Your task to perform on an android device: Search for razer thresher on walmart.com, select the first entry, and add it to the cart. Image 0: 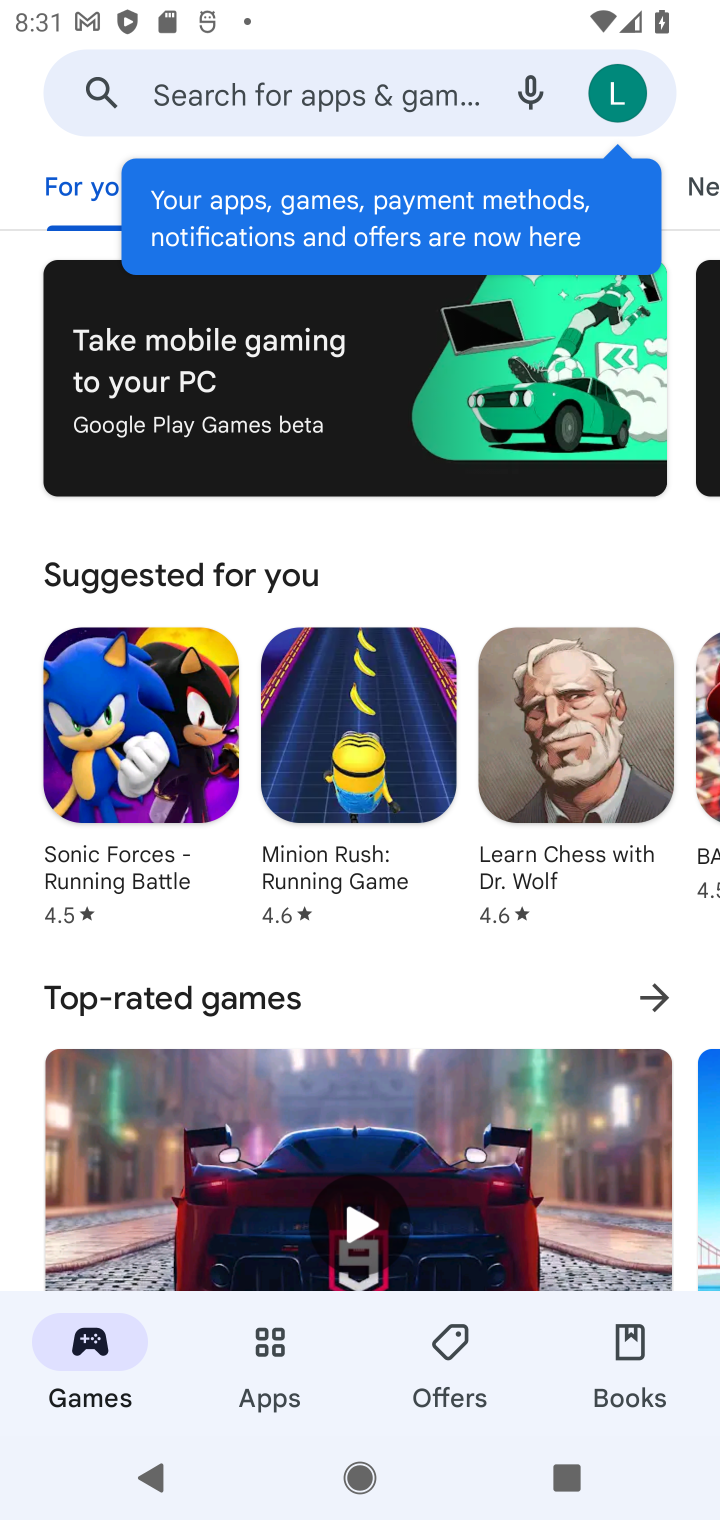
Step 0: press home button
Your task to perform on an android device: Search for razer thresher on walmart.com, select the first entry, and add it to the cart. Image 1: 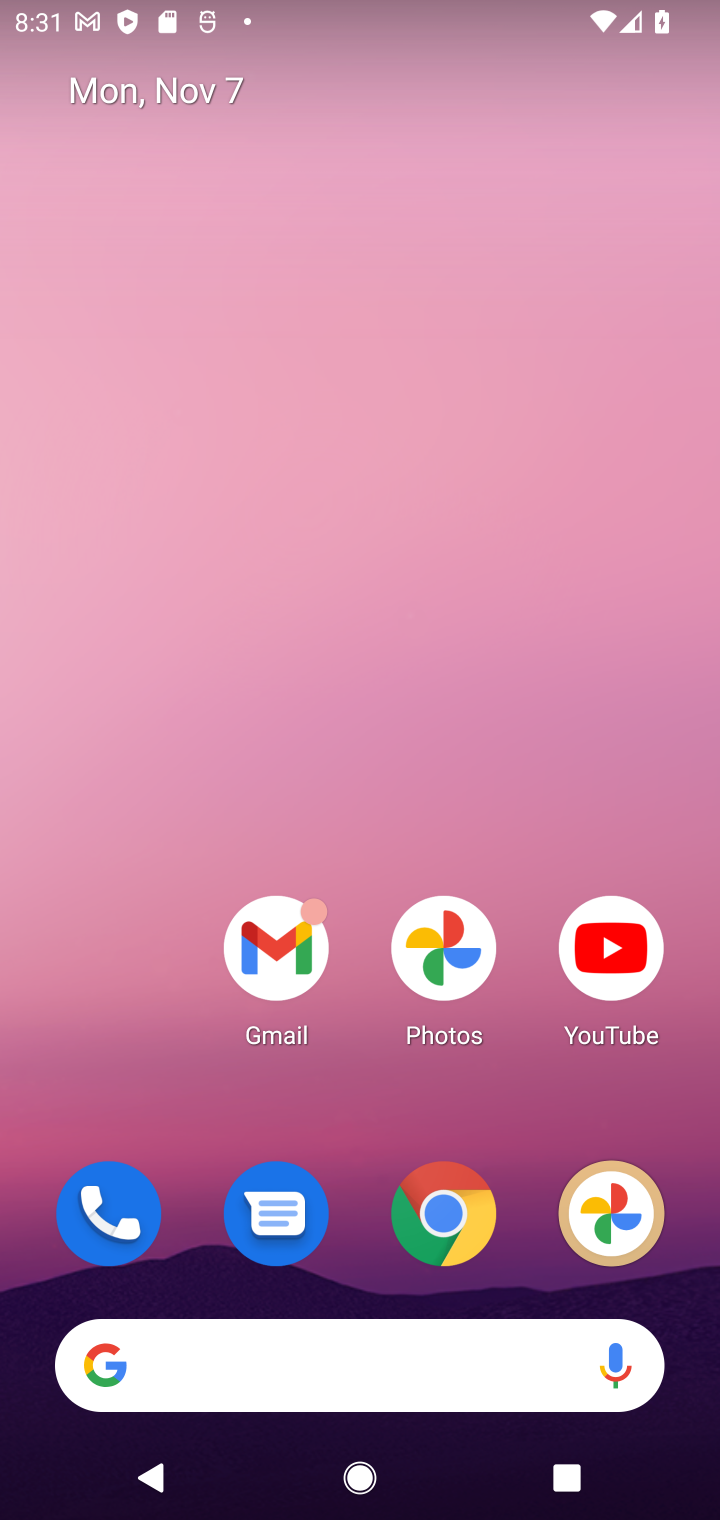
Step 1: click (459, 1222)
Your task to perform on an android device: Search for razer thresher on walmart.com, select the first entry, and add it to the cart. Image 2: 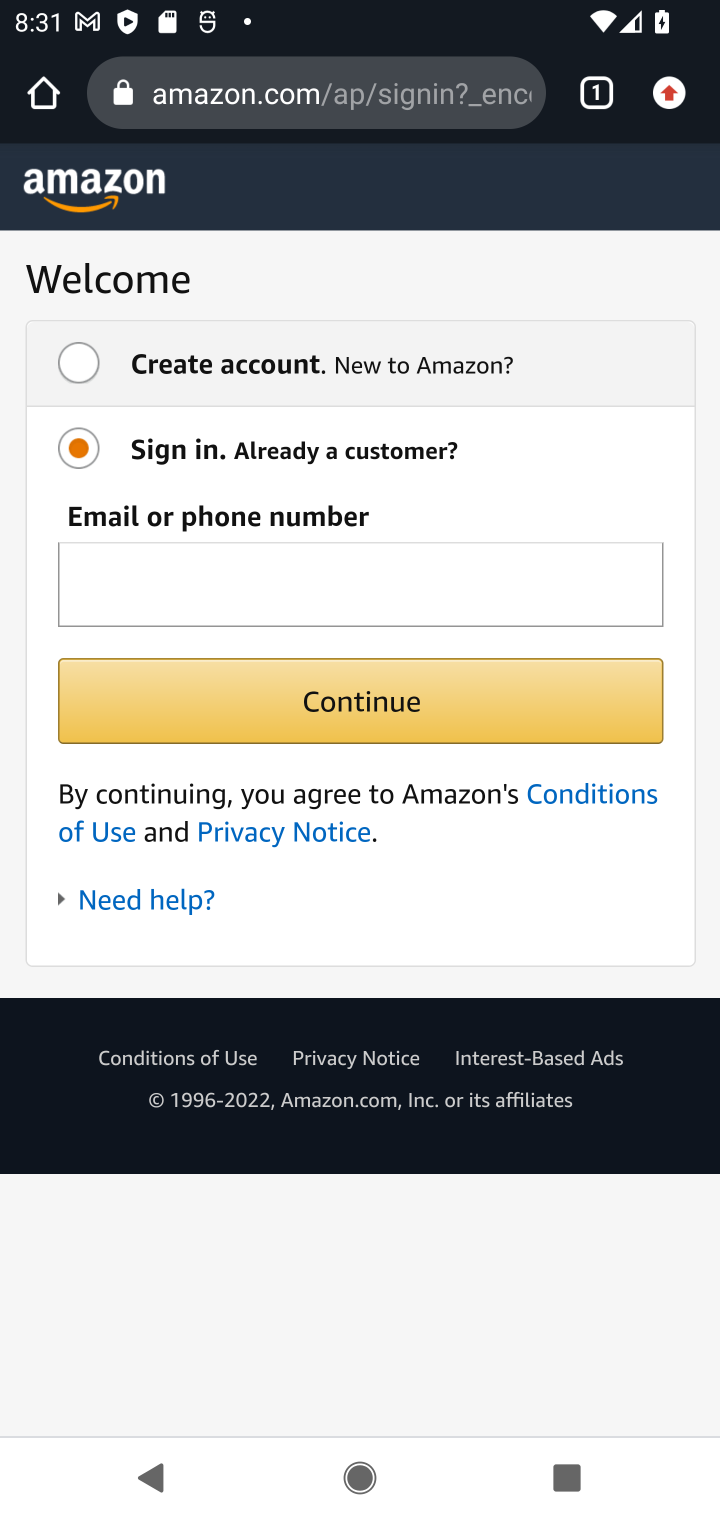
Step 2: click (345, 108)
Your task to perform on an android device: Search for razer thresher on walmart.com, select the first entry, and add it to the cart. Image 3: 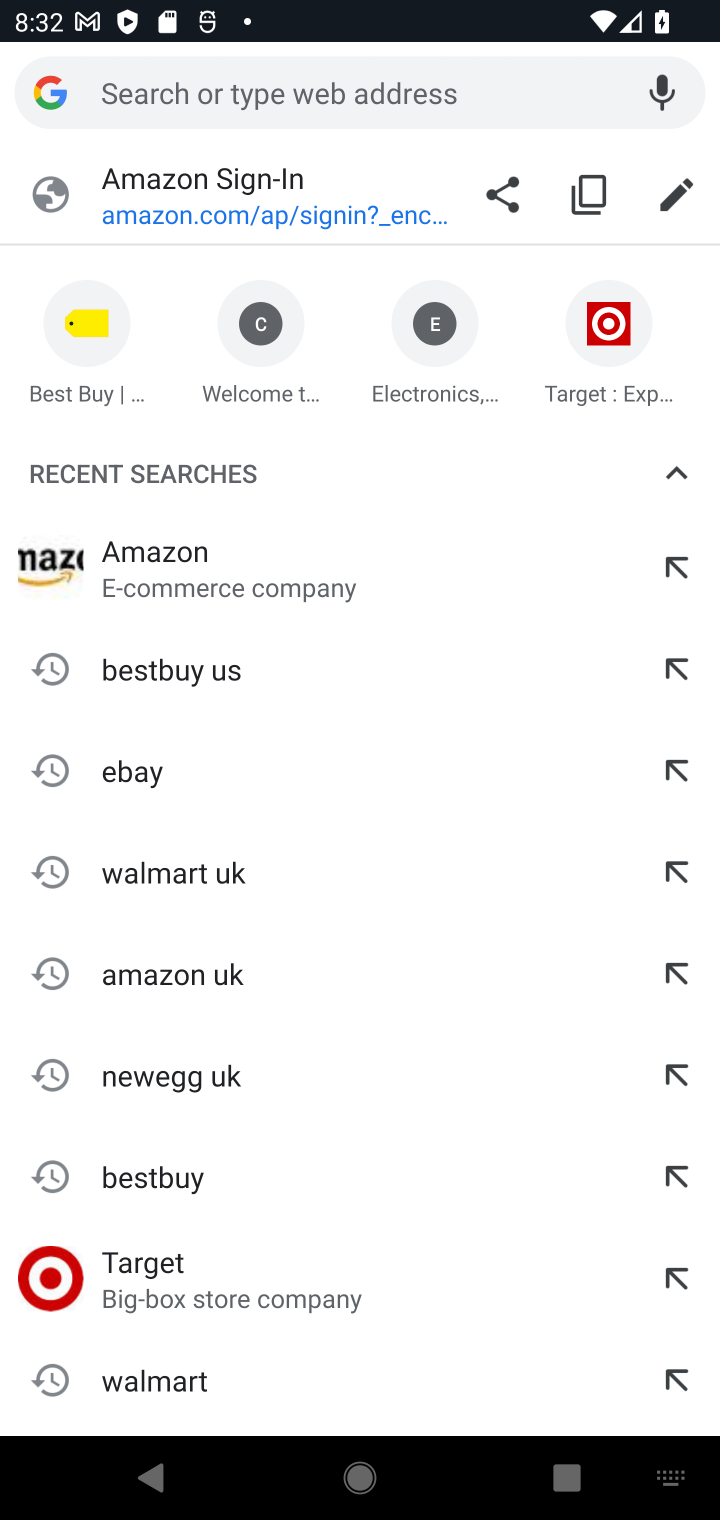
Step 3: type "walmart.com"
Your task to perform on an android device: Search for razer thresher on walmart.com, select the first entry, and add it to the cart. Image 4: 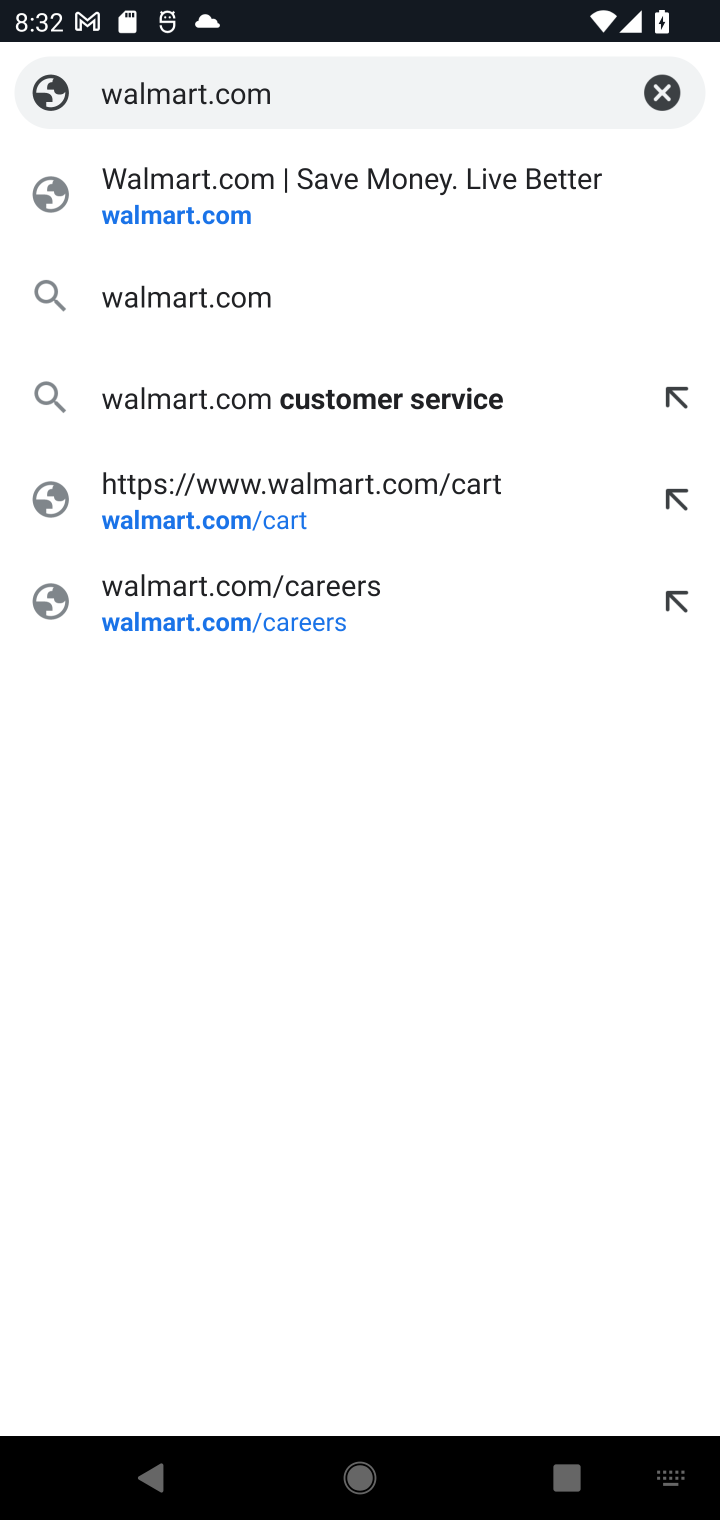
Step 4: click (179, 218)
Your task to perform on an android device: Search for razer thresher on walmart.com, select the first entry, and add it to the cart. Image 5: 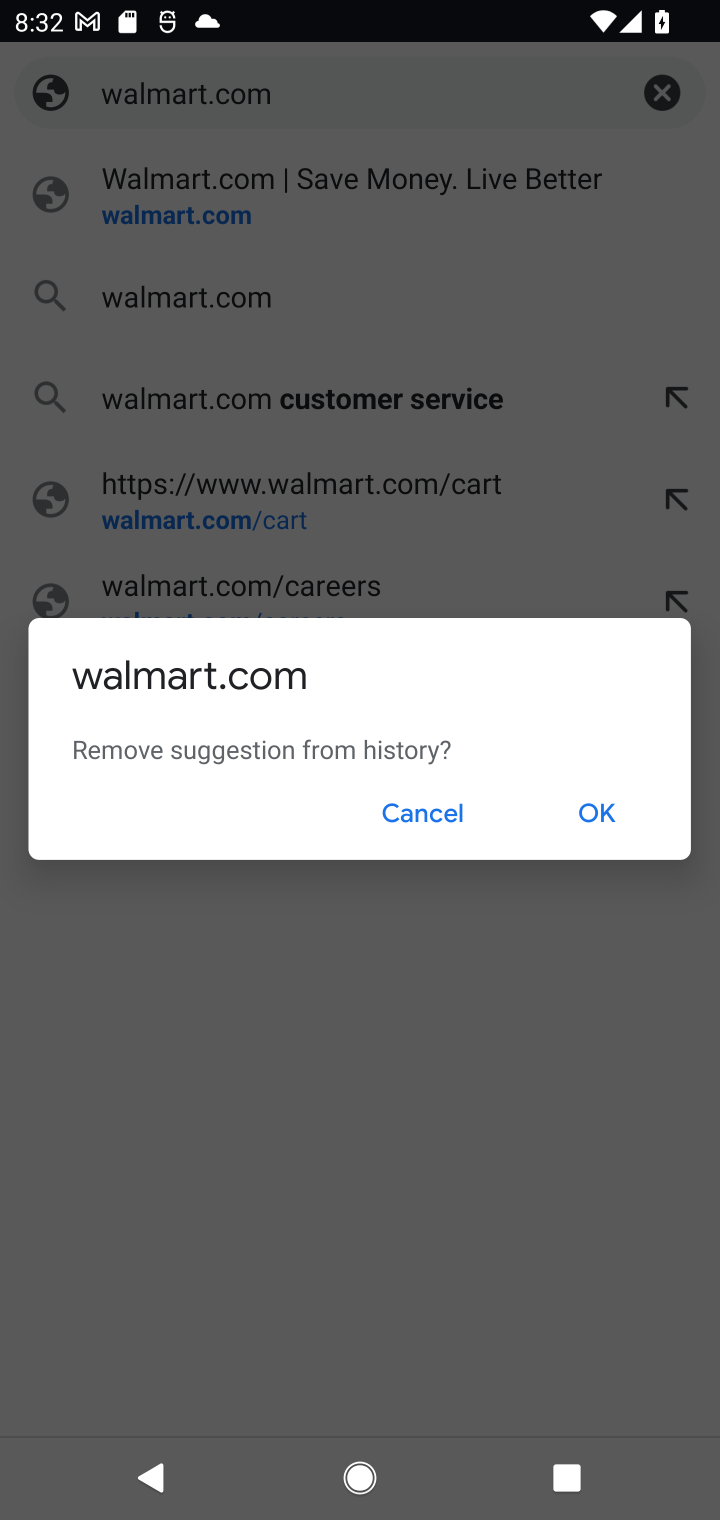
Step 5: click (425, 814)
Your task to perform on an android device: Search for razer thresher on walmart.com, select the first entry, and add it to the cart. Image 6: 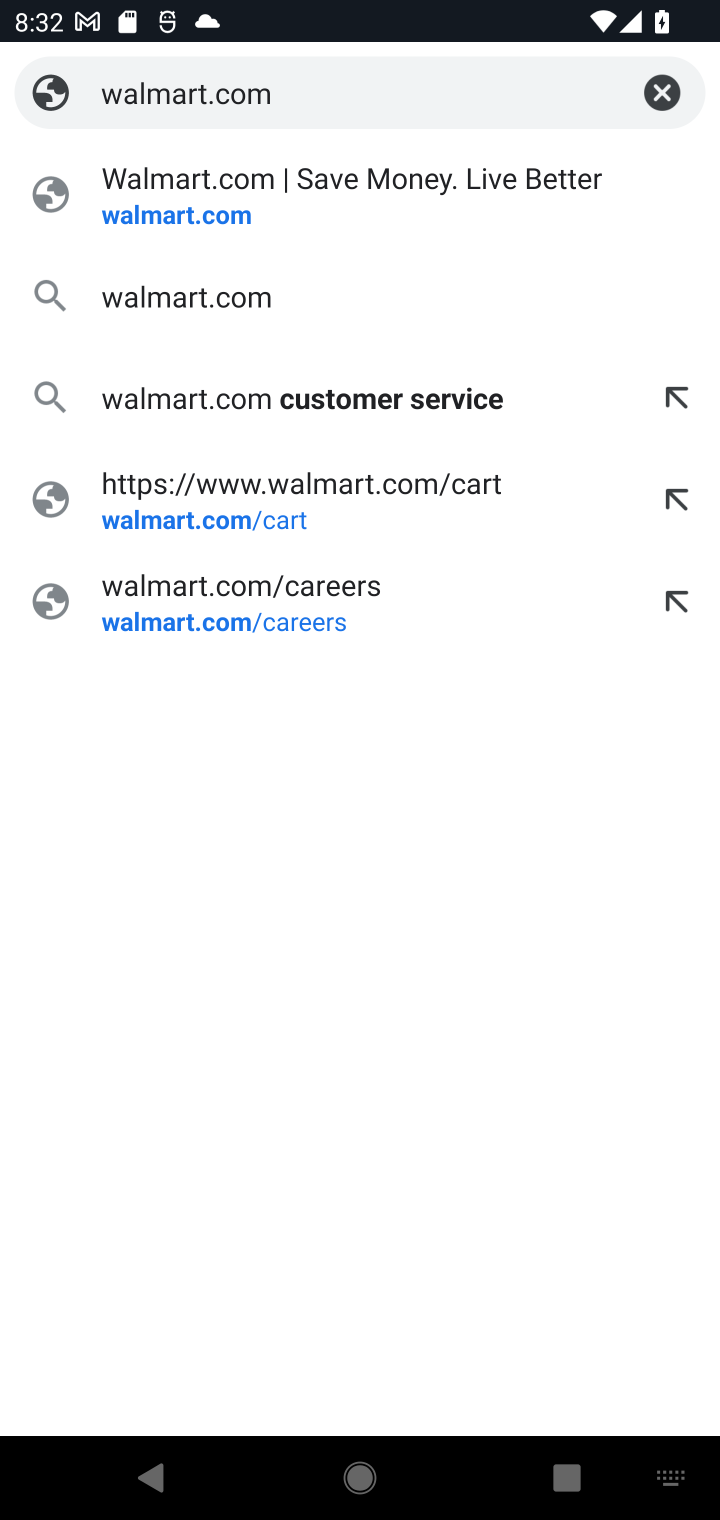
Step 6: click (136, 253)
Your task to perform on an android device: Search for razer thresher on walmart.com, select the first entry, and add it to the cart. Image 7: 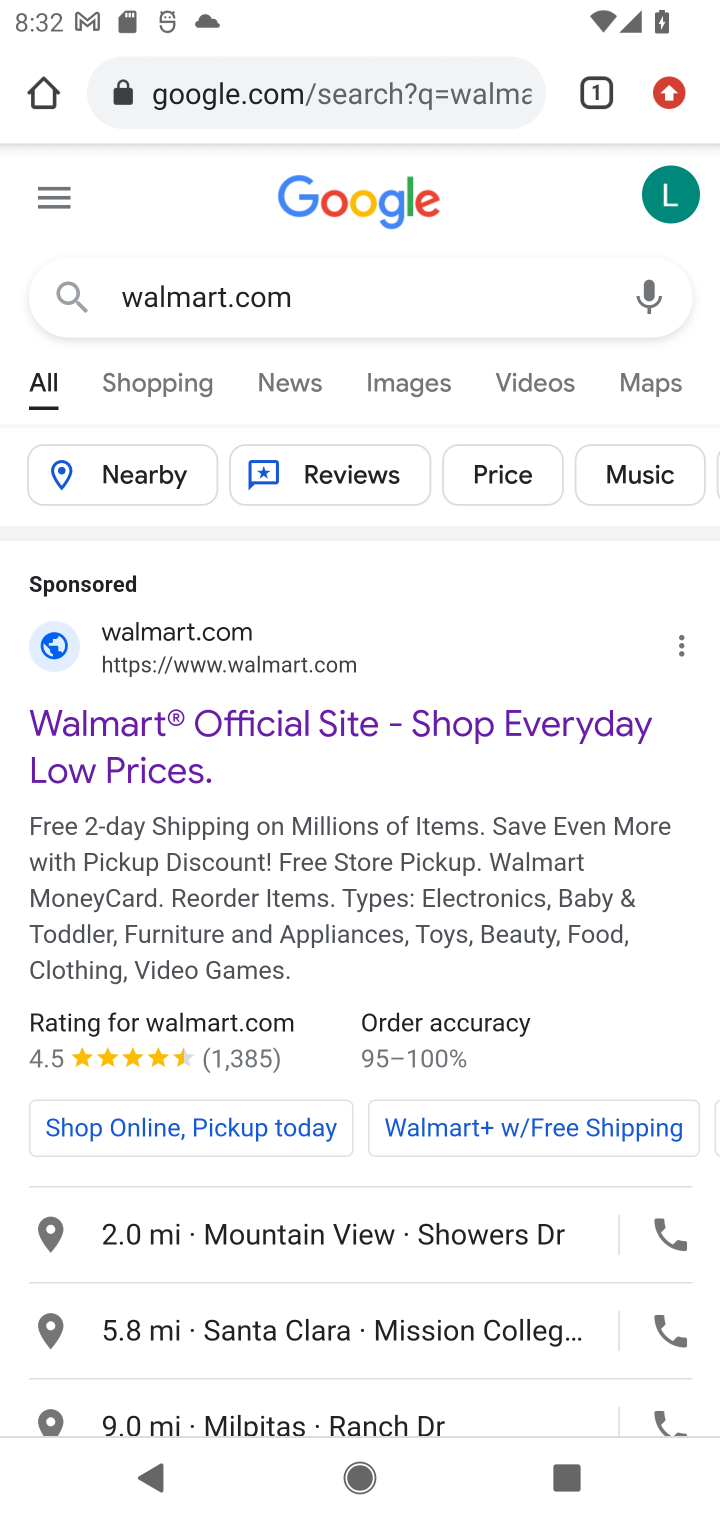
Step 7: drag from (176, 898) to (174, 277)
Your task to perform on an android device: Search for razer thresher on walmart.com, select the first entry, and add it to the cart. Image 8: 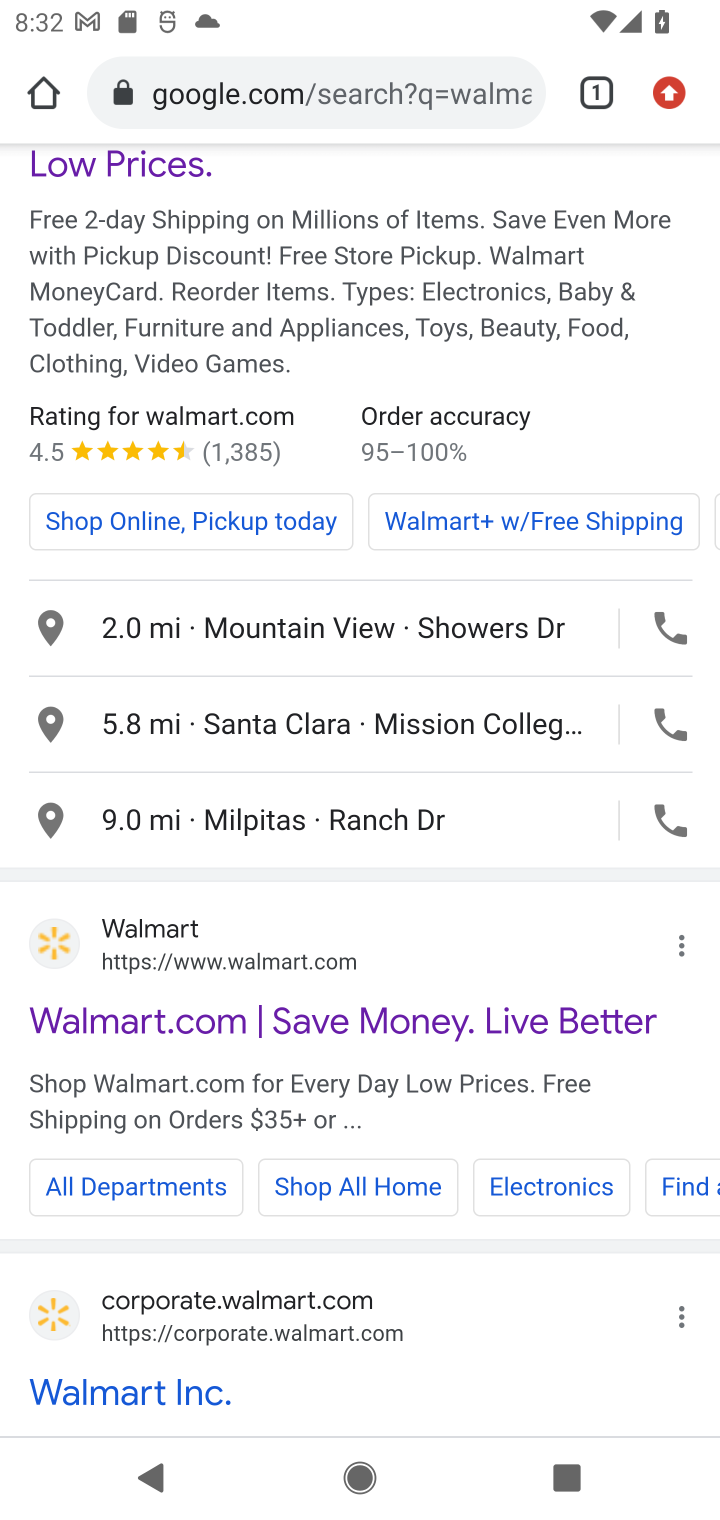
Step 8: click (165, 959)
Your task to perform on an android device: Search for razer thresher on walmart.com, select the first entry, and add it to the cart. Image 9: 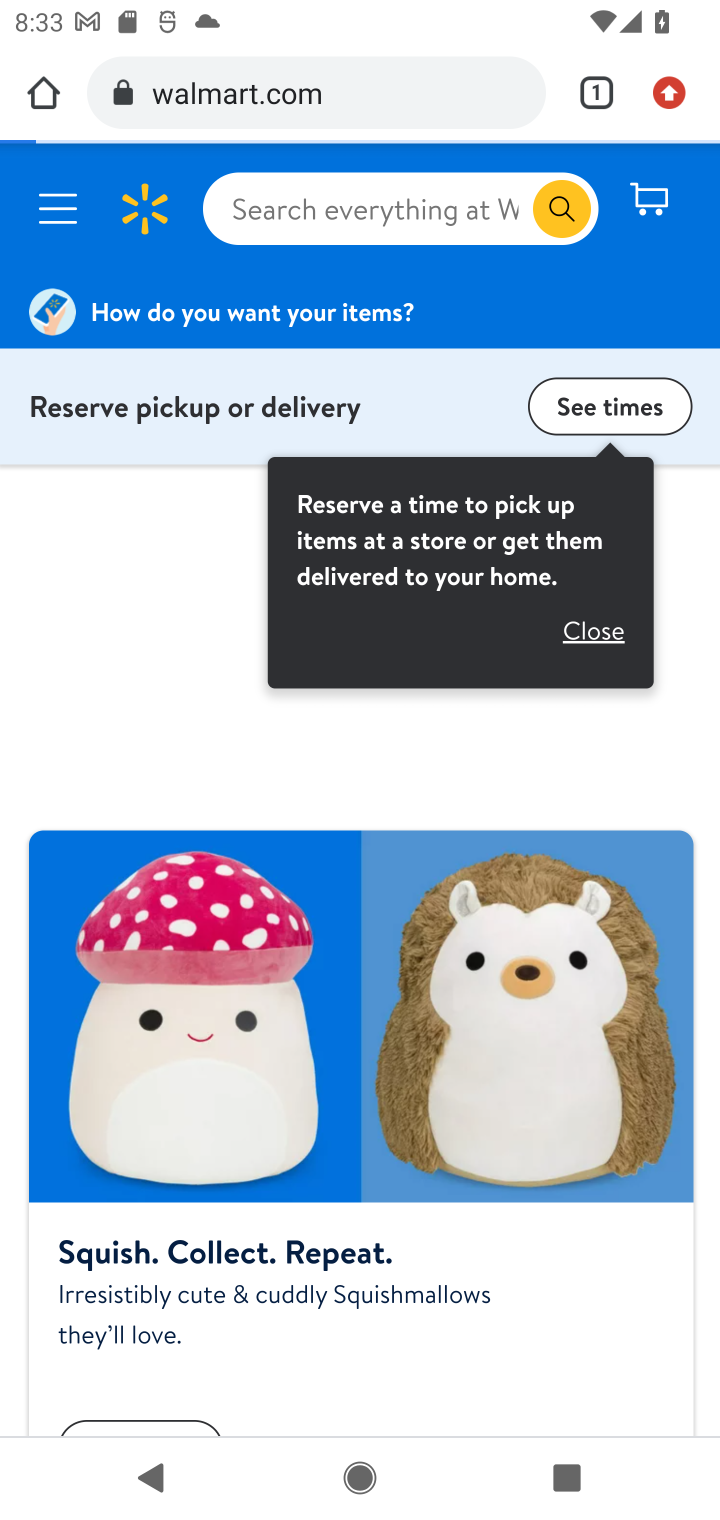
Step 9: click (353, 220)
Your task to perform on an android device: Search for razer thresher on walmart.com, select the first entry, and add it to the cart. Image 10: 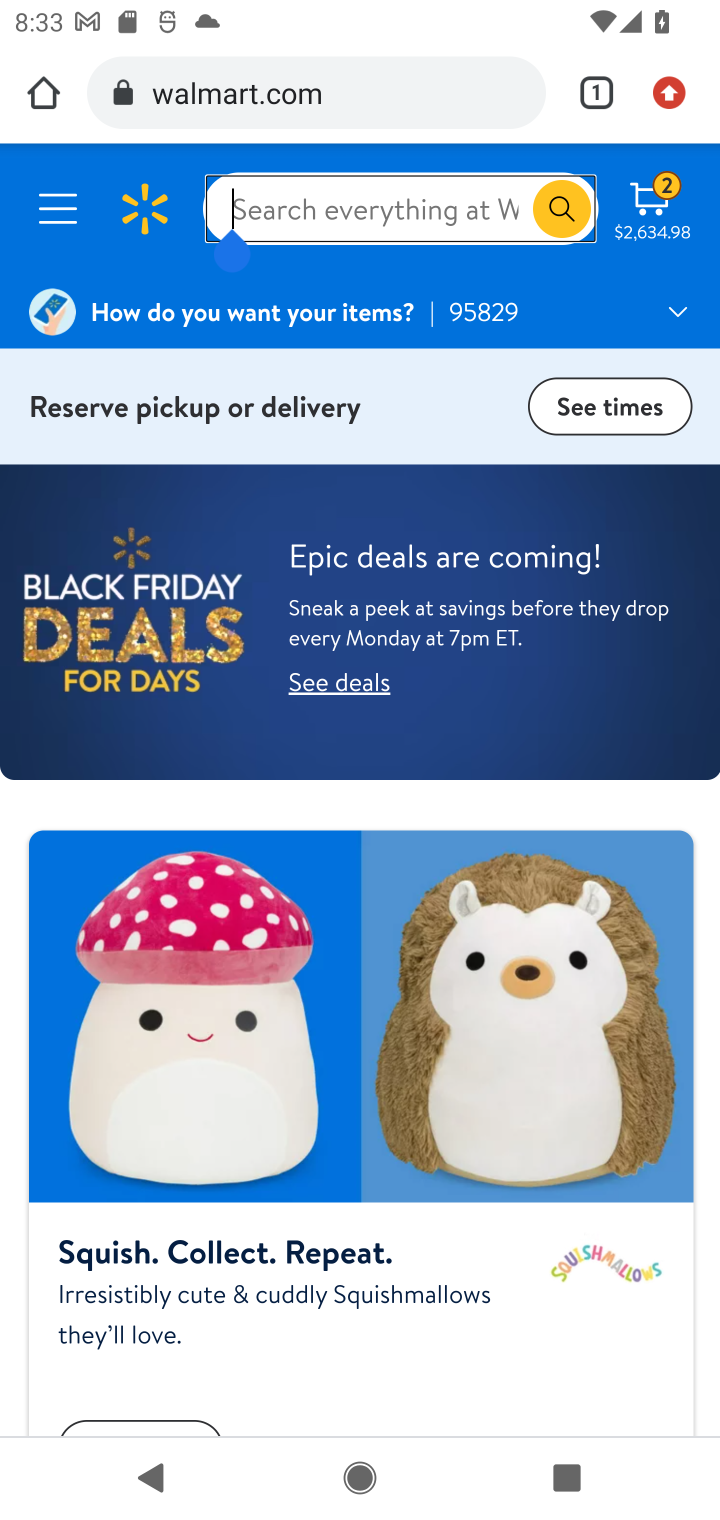
Step 10: type "razer thresher"
Your task to perform on an android device: Search for razer thresher on walmart.com, select the first entry, and add it to the cart. Image 11: 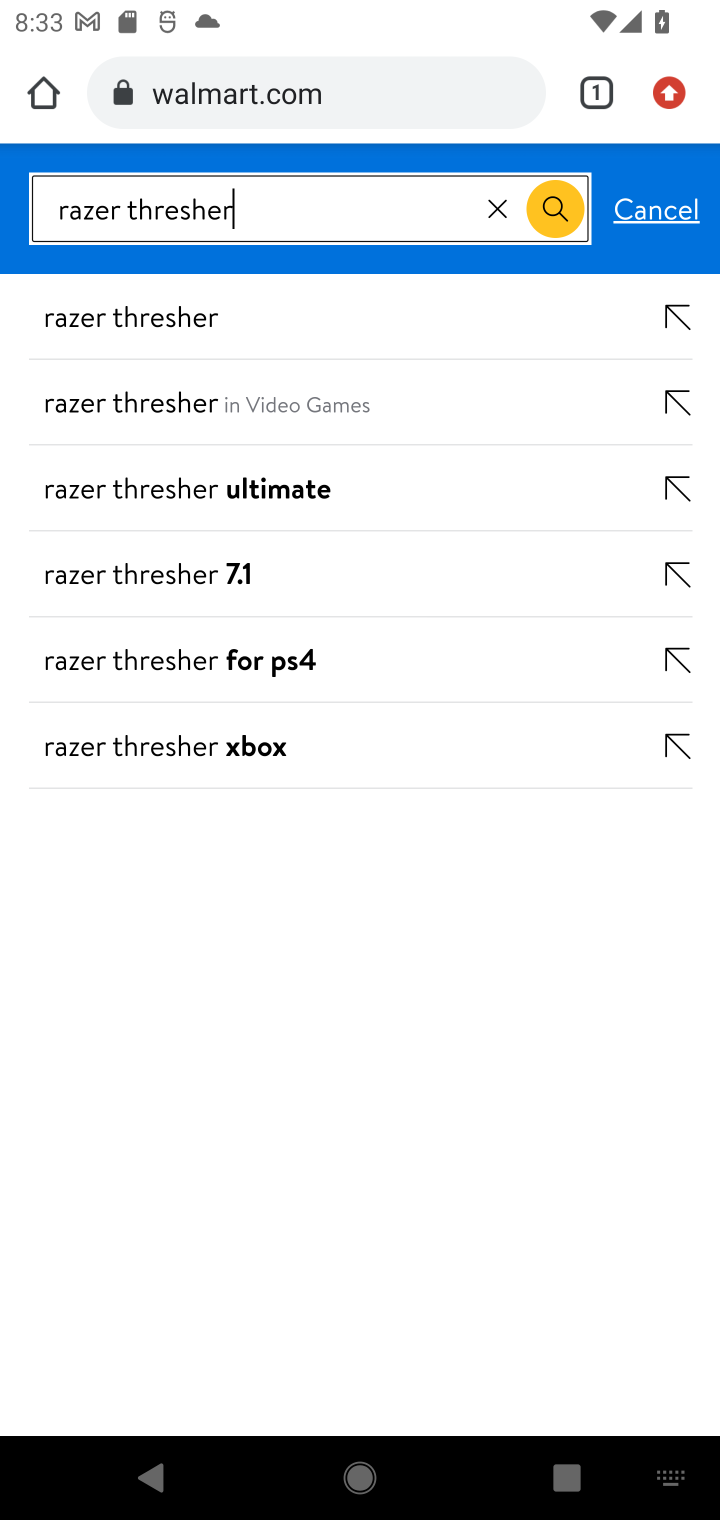
Step 11: click (114, 322)
Your task to perform on an android device: Search for razer thresher on walmart.com, select the first entry, and add it to the cart. Image 12: 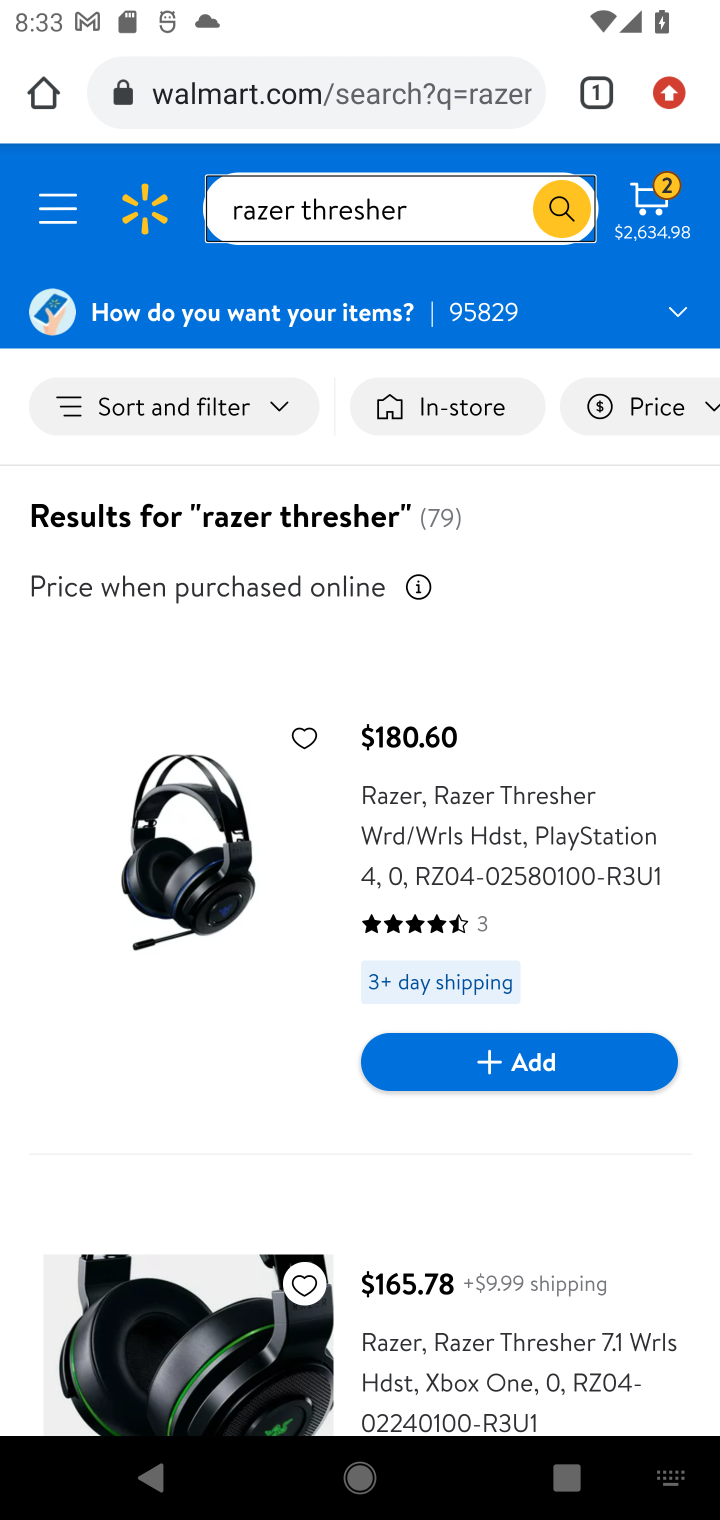
Step 12: click (539, 1068)
Your task to perform on an android device: Search for razer thresher on walmart.com, select the first entry, and add it to the cart. Image 13: 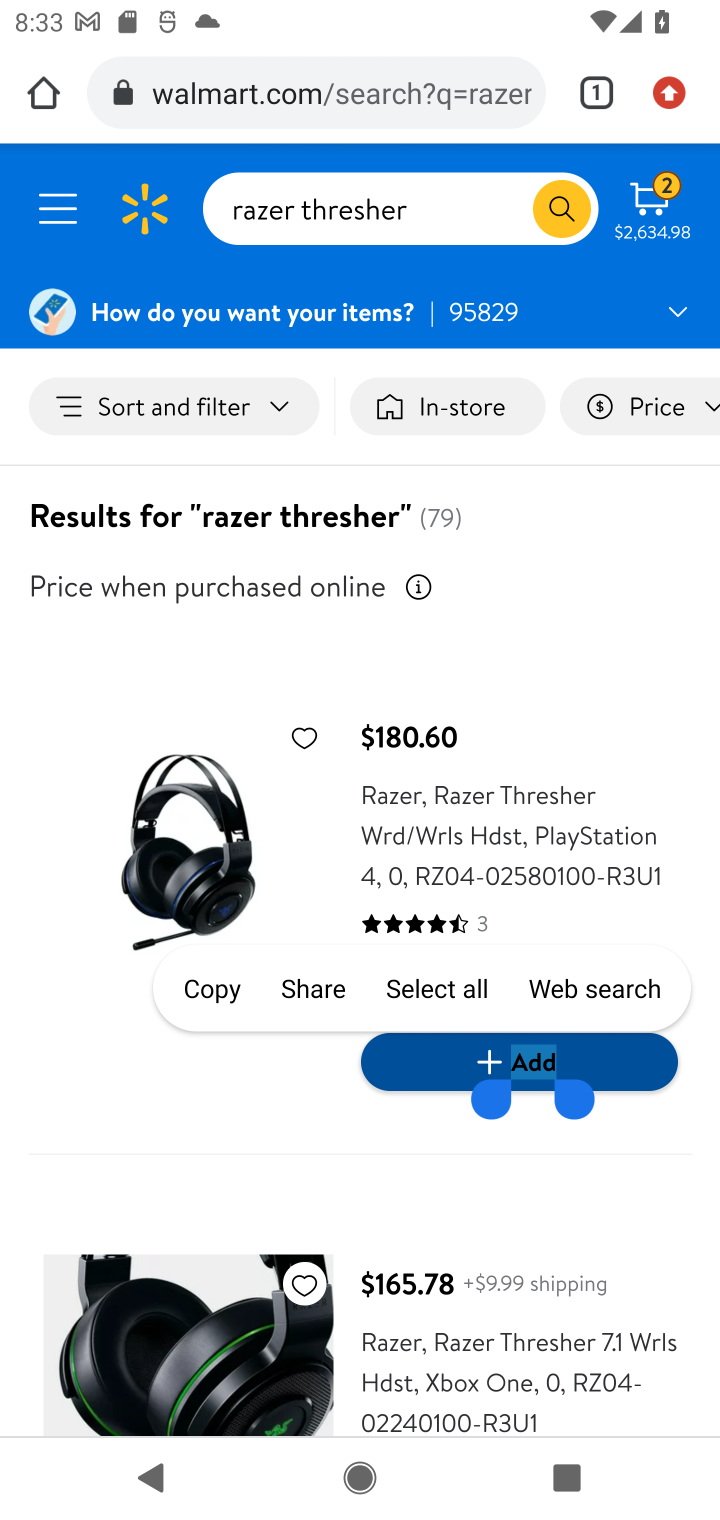
Step 13: click (498, 1070)
Your task to perform on an android device: Search for razer thresher on walmart.com, select the first entry, and add it to the cart. Image 14: 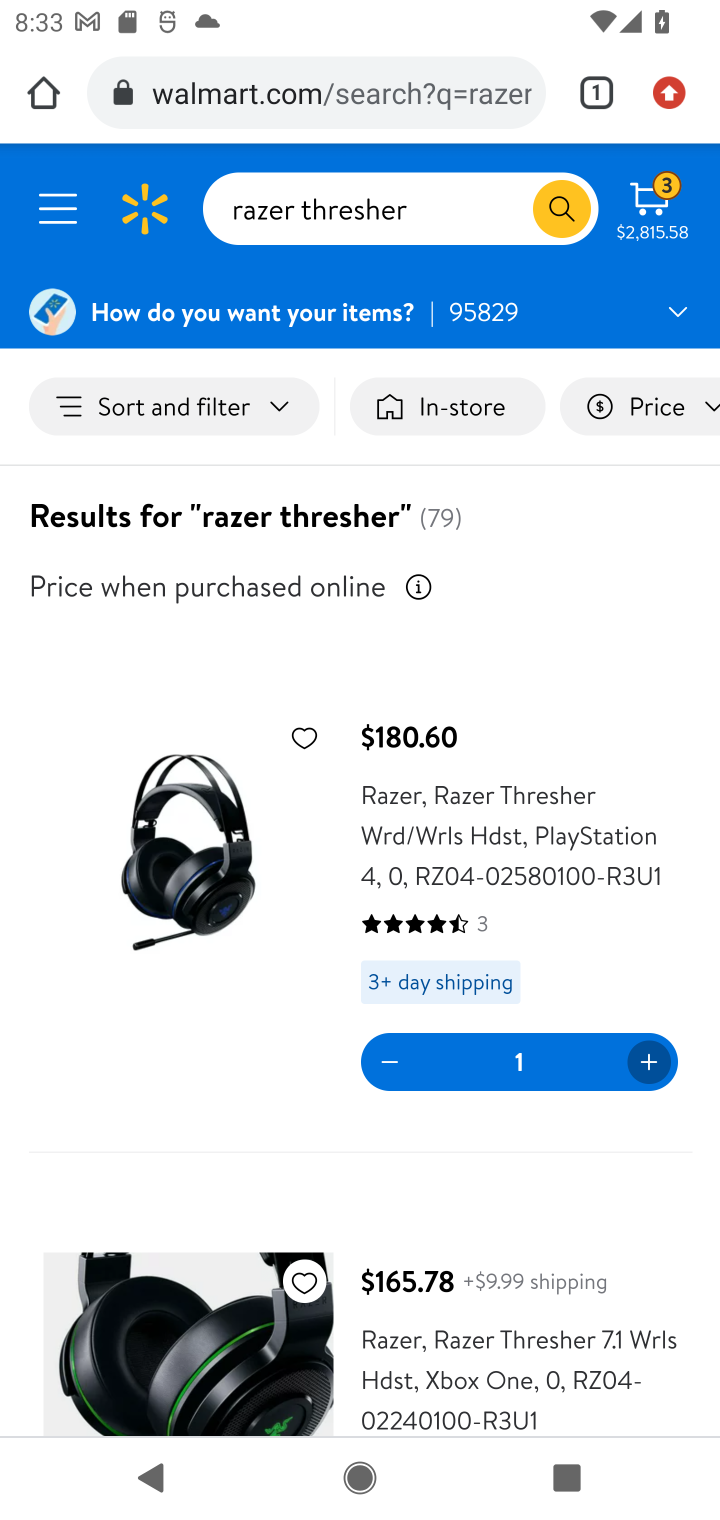
Step 14: click (639, 213)
Your task to perform on an android device: Search for razer thresher on walmart.com, select the first entry, and add it to the cart. Image 15: 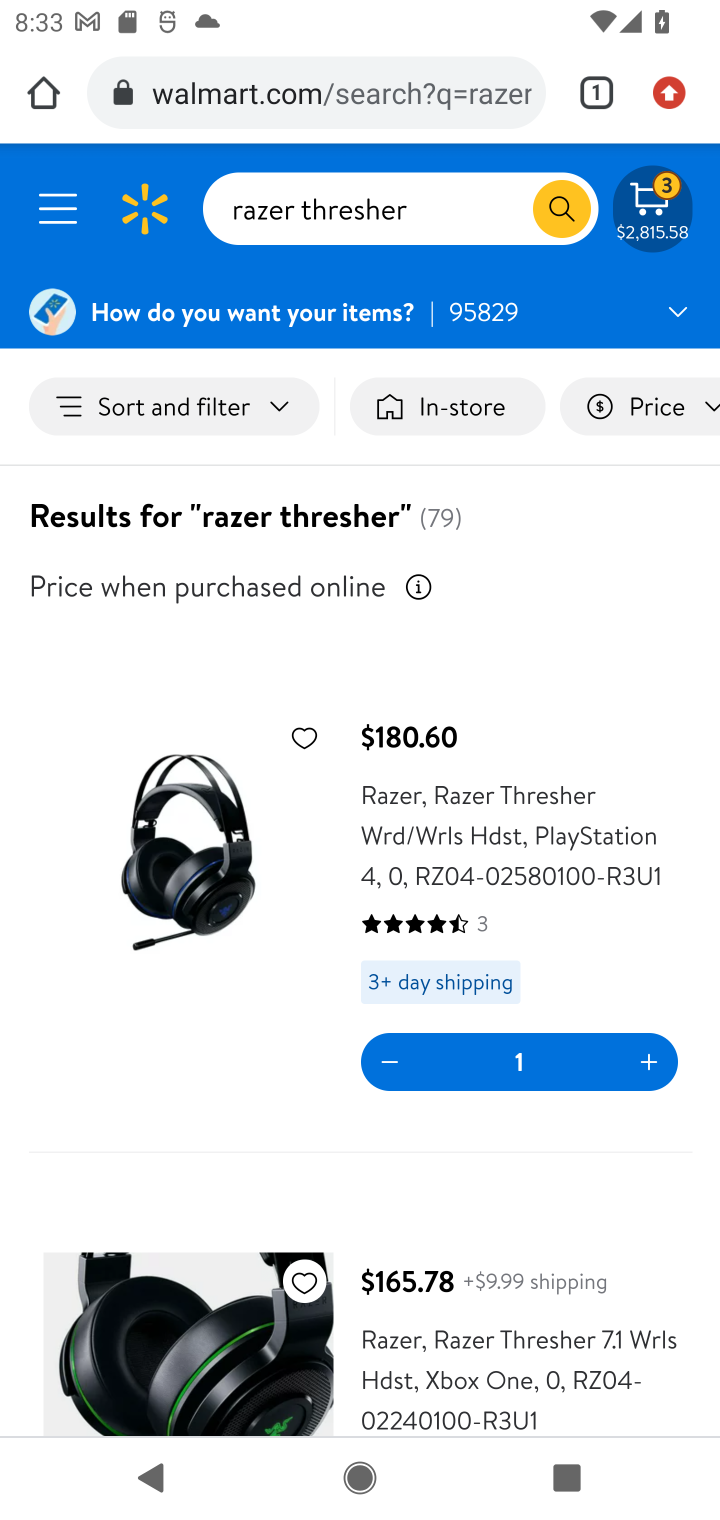
Step 15: task complete